Your task to perform on an android device: Open the calendar and show me this week's events? Image 0: 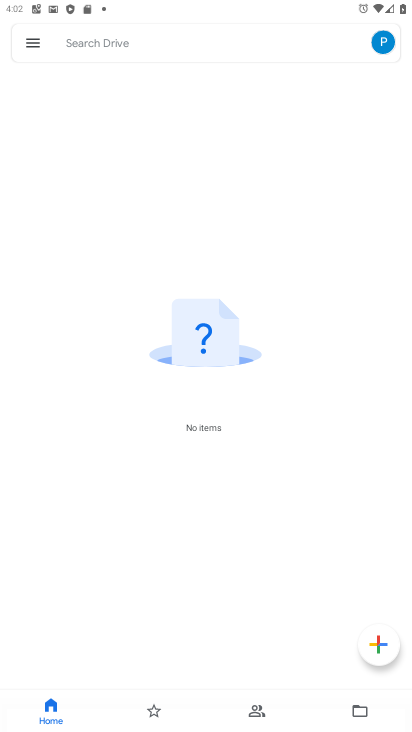
Step 0: press home button
Your task to perform on an android device: Open the calendar and show me this week's events? Image 1: 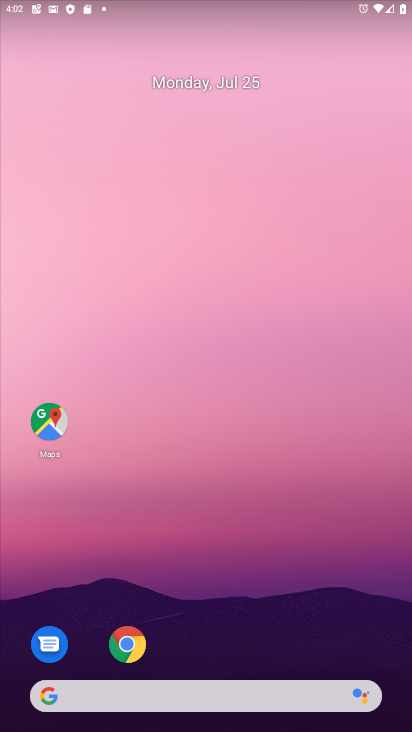
Step 1: drag from (288, 639) to (261, 261)
Your task to perform on an android device: Open the calendar and show me this week's events? Image 2: 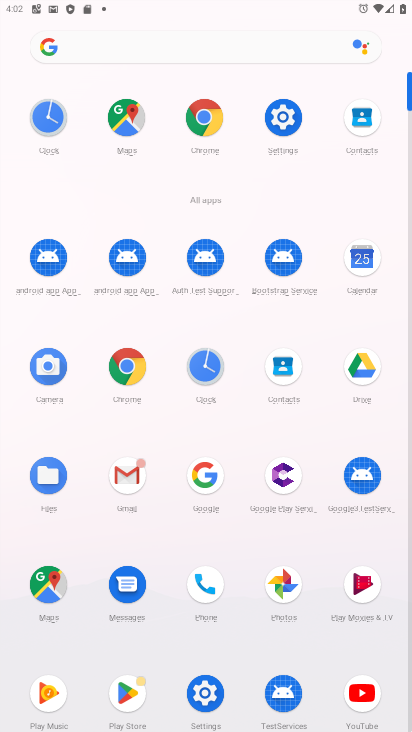
Step 2: click (363, 259)
Your task to perform on an android device: Open the calendar and show me this week's events? Image 3: 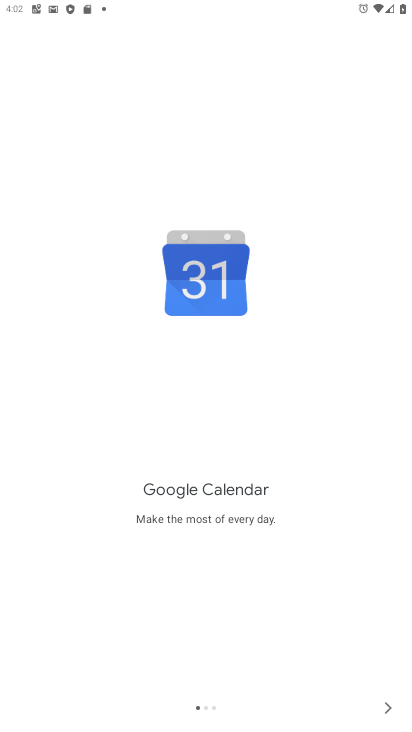
Step 3: click (384, 704)
Your task to perform on an android device: Open the calendar and show me this week's events? Image 4: 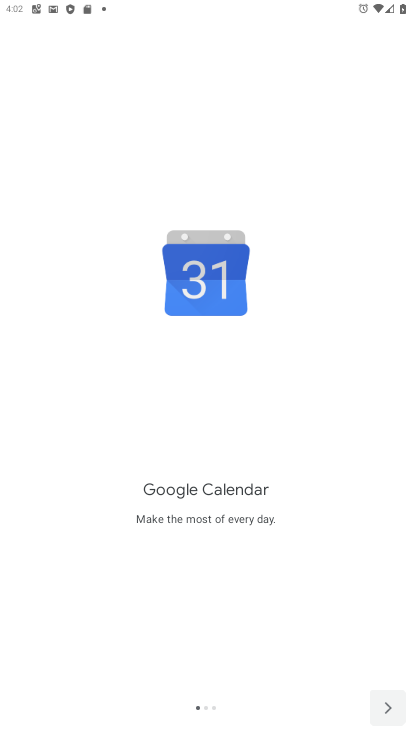
Step 4: click (384, 704)
Your task to perform on an android device: Open the calendar and show me this week's events? Image 5: 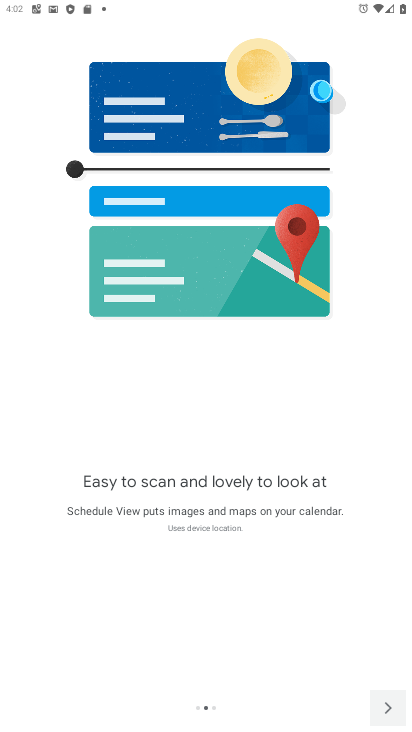
Step 5: click (384, 704)
Your task to perform on an android device: Open the calendar and show me this week's events? Image 6: 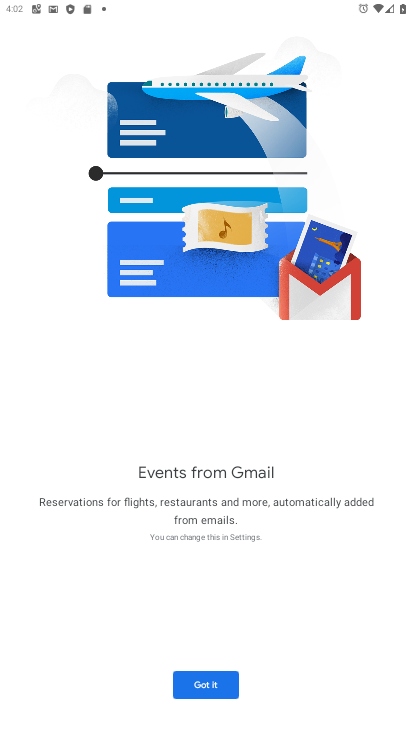
Step 6: click (212, 676)
Your task to perform on an android device: Open the calendar and show me this week's events? Image 7: 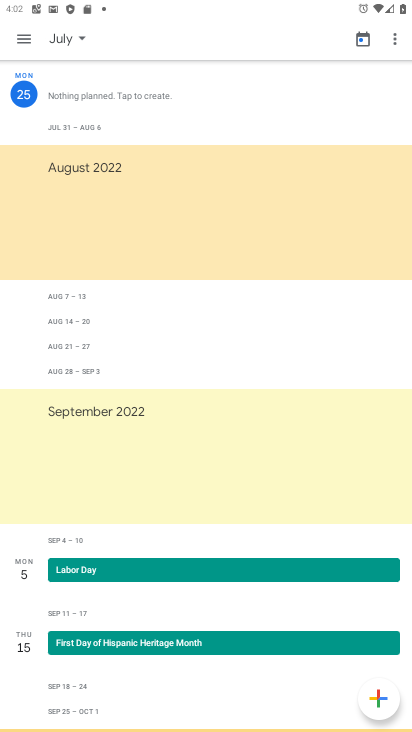
Step 7: click (23, 39)
Your task to perform on an android device: Open the calendar and show me this week's events? Image 8: 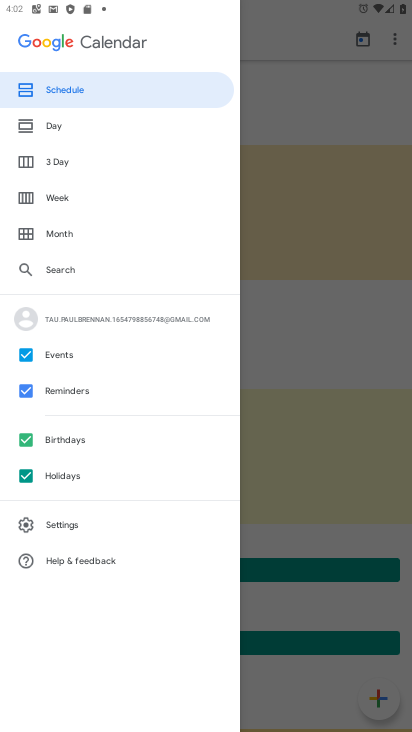
Step 8: click (64, 192)
Your task to perform on an android device: Open the calendar and show me this week's events? Image 9: 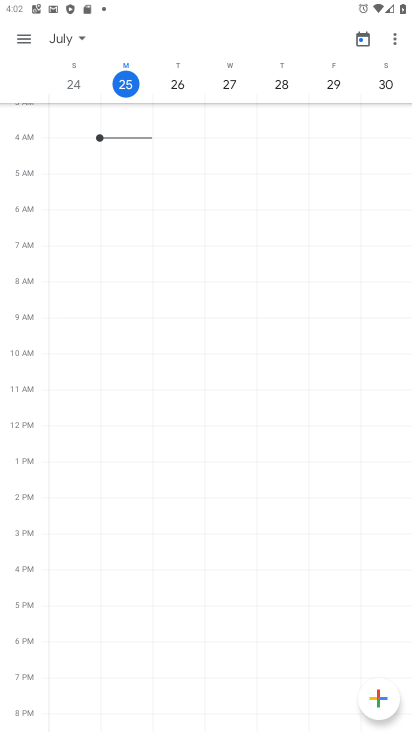
Step 9: task complete